Your task to perform on an android device: Search for sushi restaurants on Maps Image 0: 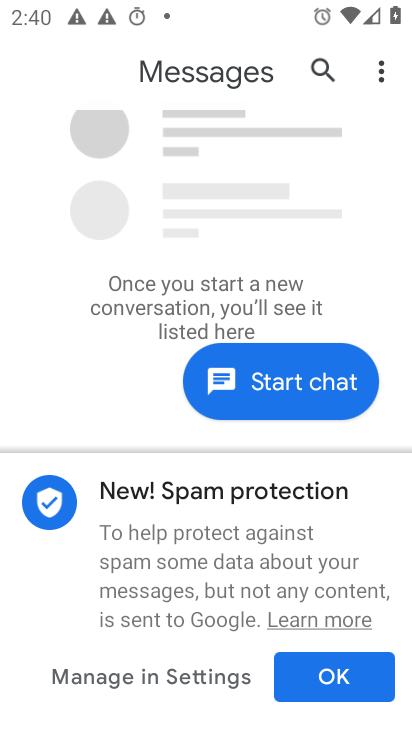
Step 0: press home button
Your task to perform on an android device: Search for sushi restaurants on Maps Image 1: 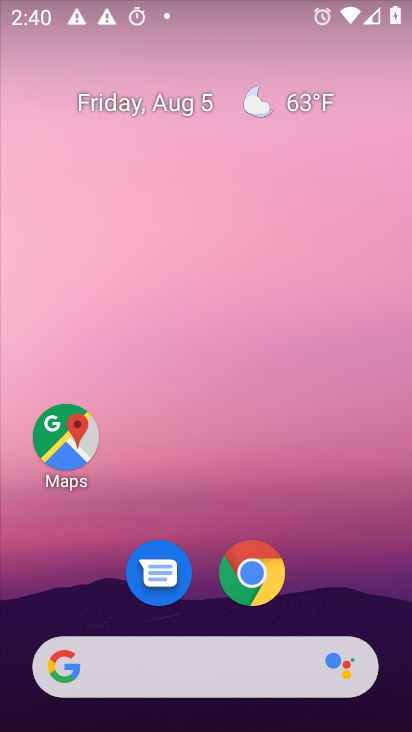
Step 1: drag from (328, 579) to (363, 167)
Your task to perform on an android device: Search for sushi restaurants on Maps Image 2: 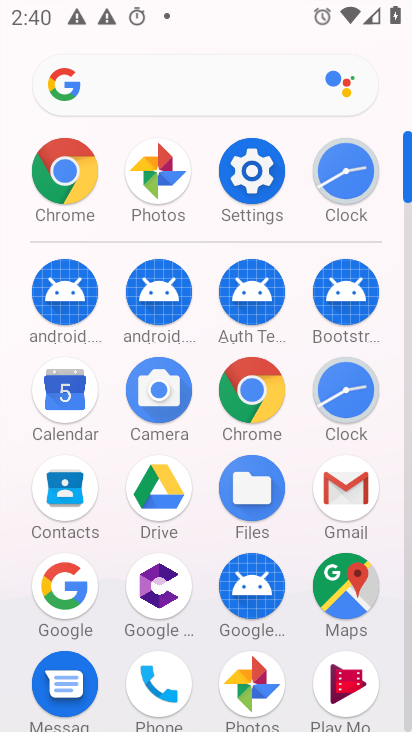
Step 2: click (349, 580)
Your task to perform on an android device: Search for sushi restaurants on Maps Image 3: 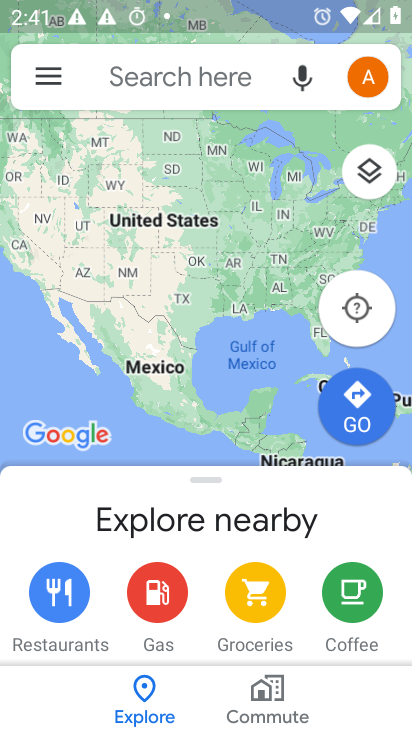
Step 3: click (210, 63)
Your task to perform on an android device: Search for sushi restaurants on Maps Image 4: 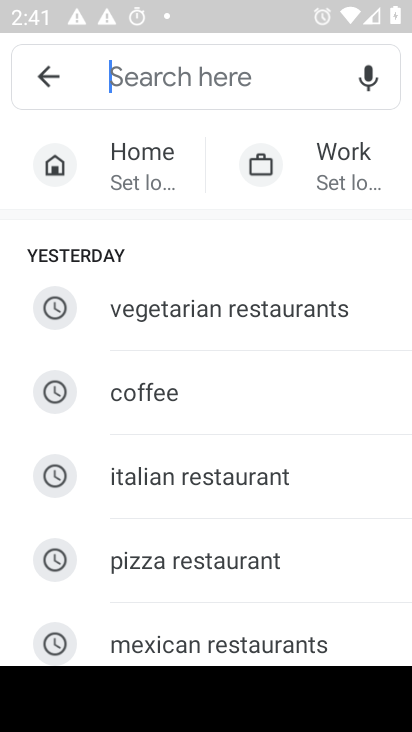
Step 4: type "sushi restaurants"
Your task to perform on an android device: Search for sushi restaurants on Maps Image 5: 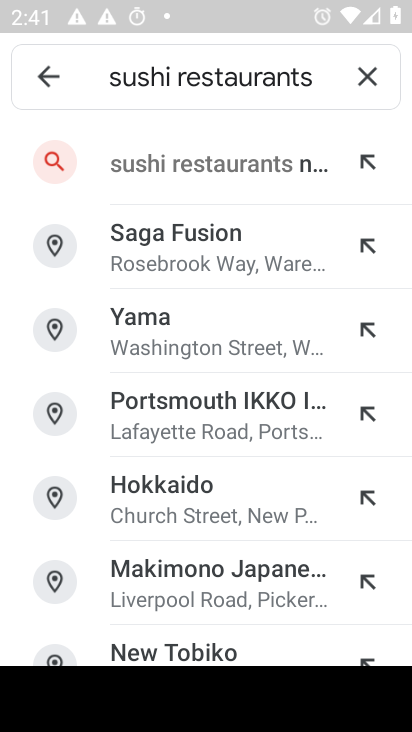
Step 5: click (268, 161)
Your task to perform on an android device: Search for sushi restaurants on Maps Image 6: 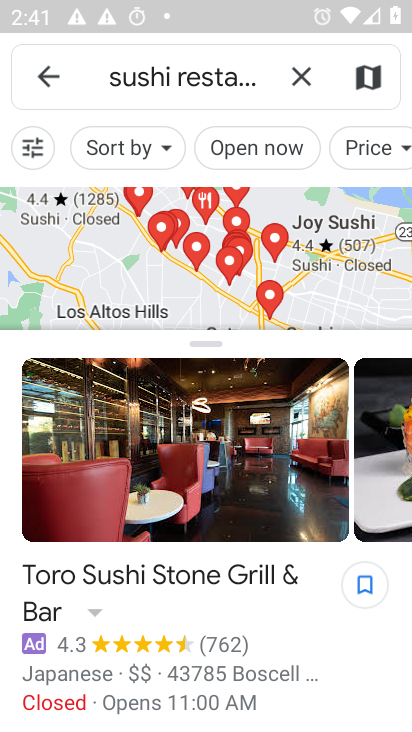
Step 6: task complete